Your task to perform on an android device: Open settings Image 0: 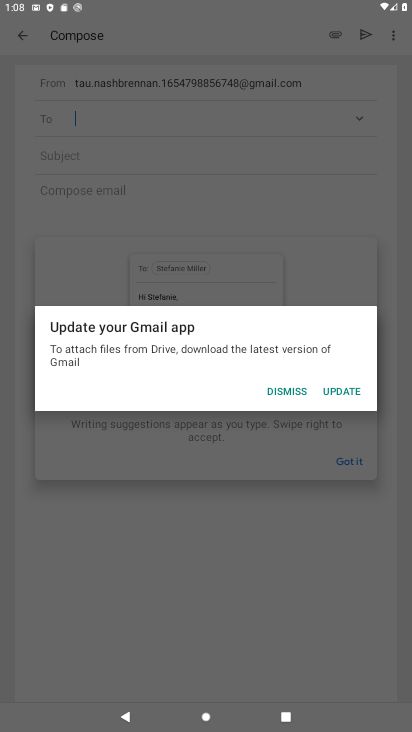
Step 0: press home button
Your task to perform on an android device: Open settings Image 1: 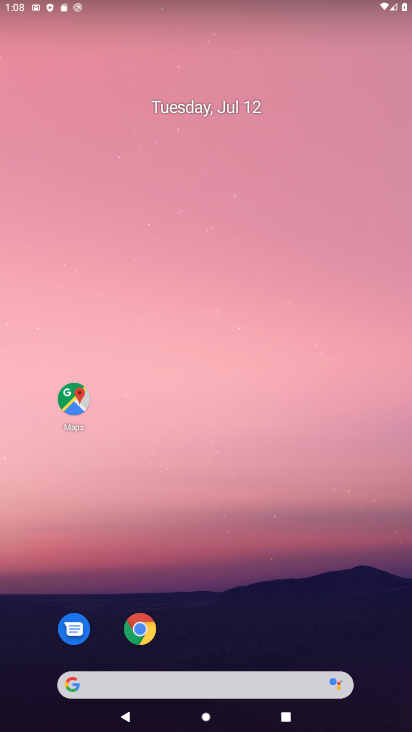
Step 1: drag from (244, 639) to (232, 201)
Your task to perform on an android device: Open settings Image 2: 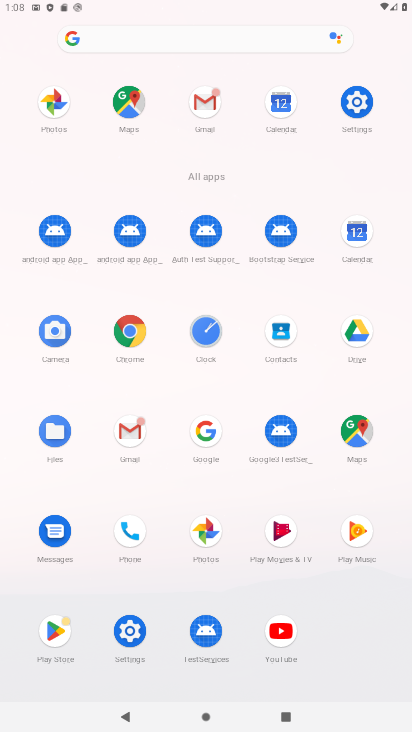
Step 2: click (354, 101)
Your task to perform on an android device: Open settings Image 3: 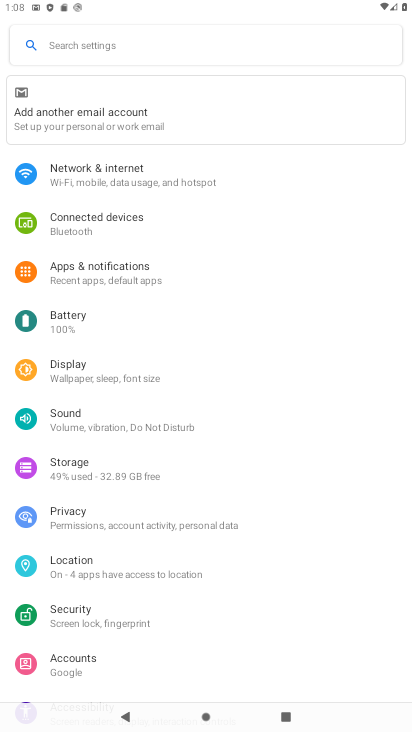
Step 3: task complete